Your task to perform on an android device: Go to Google Image 0: 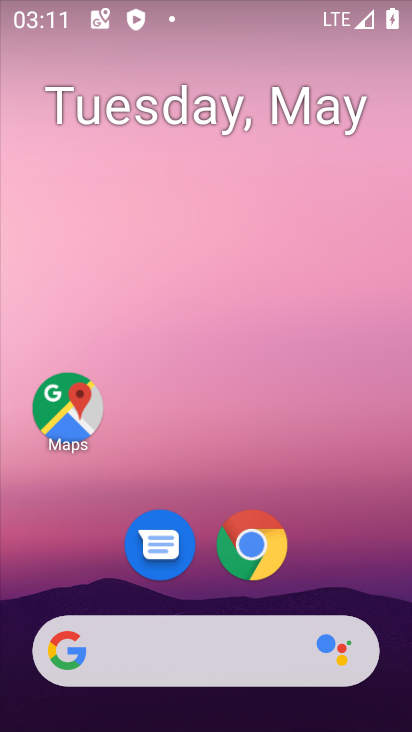
Step 0: click (252, 544)
Your task to perform on an android device: Go to Google Image 1: 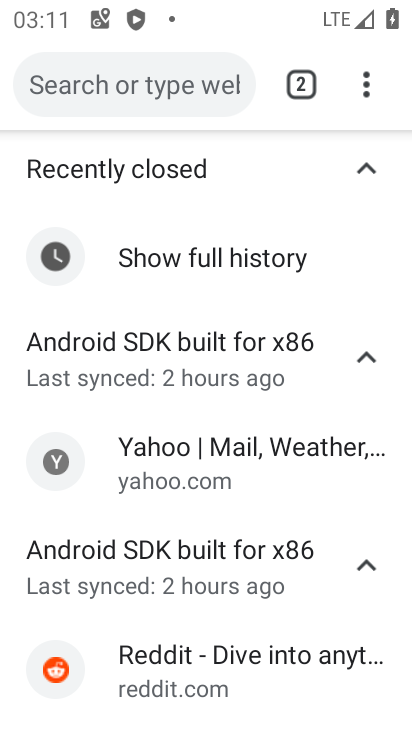
Step 1: task complete